Your task to perform on an android device: turn pop-ups on in chrome Image 0: 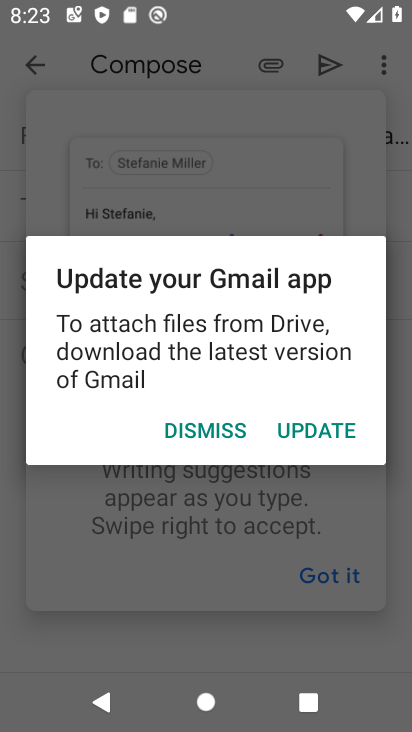
Step 0: press home button
Your task to perform on an android device: turn pop-ups on in chrome Image 1: 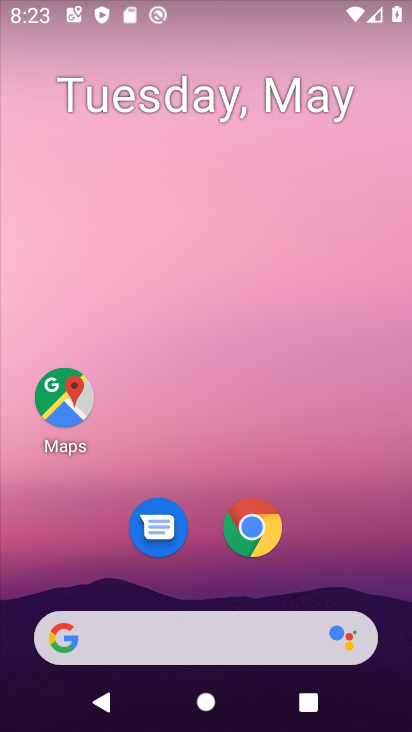
Step 1: click (273, 539)
Your task to perform on an android device: turn pop-ups on in chrome Image 2: 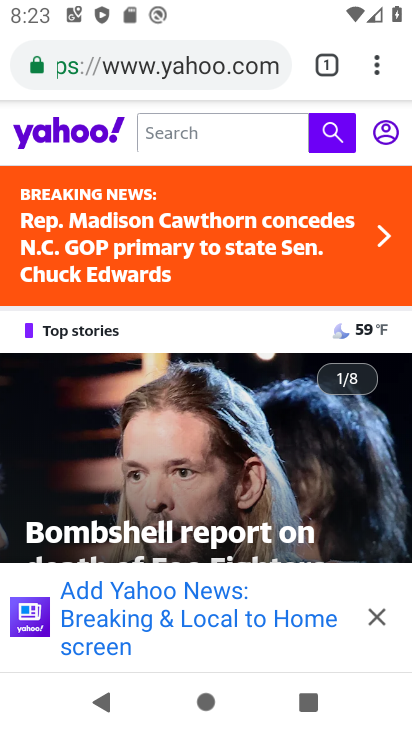
Step 2: drag from (384, 61) to (217, 598)
Your task to perform on an android device: turn pop-ups on in chrome Image 3: 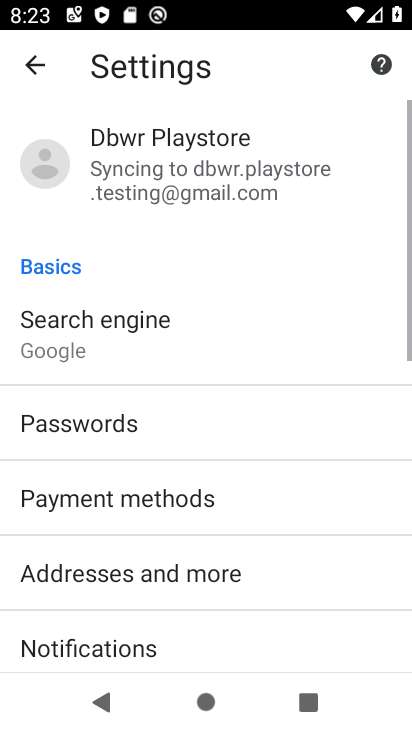
Step 3: drag from (217, 598) to (369, 269)
Your task to perform on an android device: turn pop-ups on in chrome Image 4: 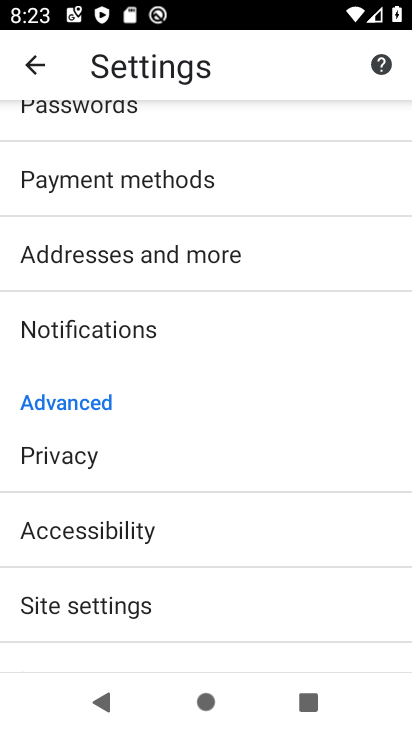
Step 4: drag from (130, 540) to (243, 328)
Your task to perform on an android device: turn pop-ups on in chrome Image 5: 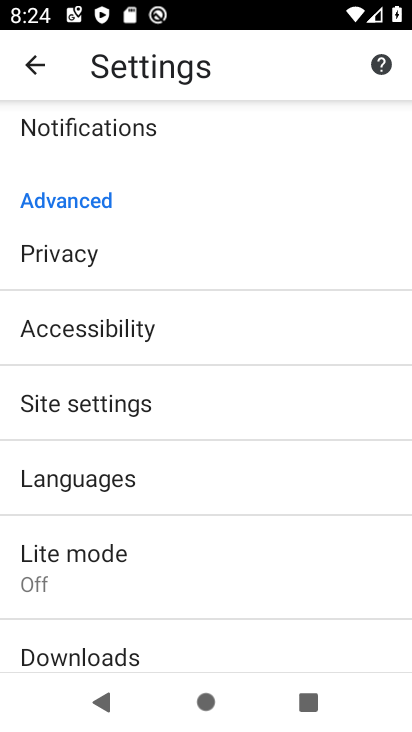
Step 5: click (147, 414)
Your task to perform on an android device: turn pop-ups on in chrome Image 6: 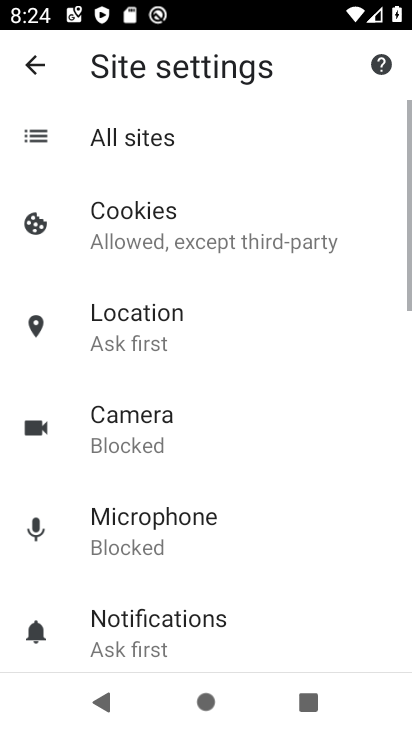
Step 6: drag from (204, 540) to (324, 227)
Your task to perform on an android device: turn pop-ups on in chrome Image 7: 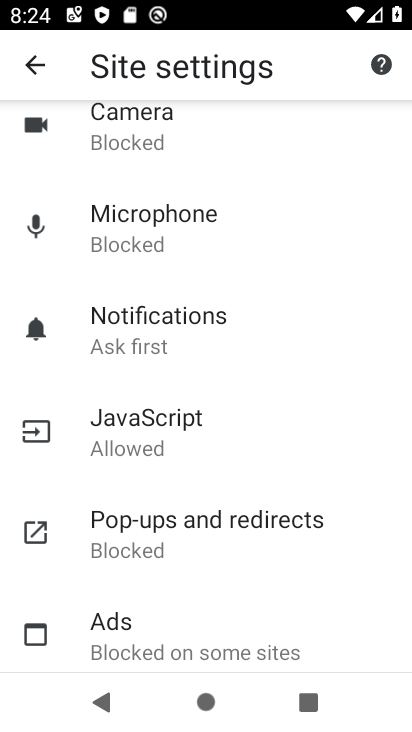
Step 7: click (189, 535)
Your task to perform on an android device: turn pop-ups on in chrome Image 8: 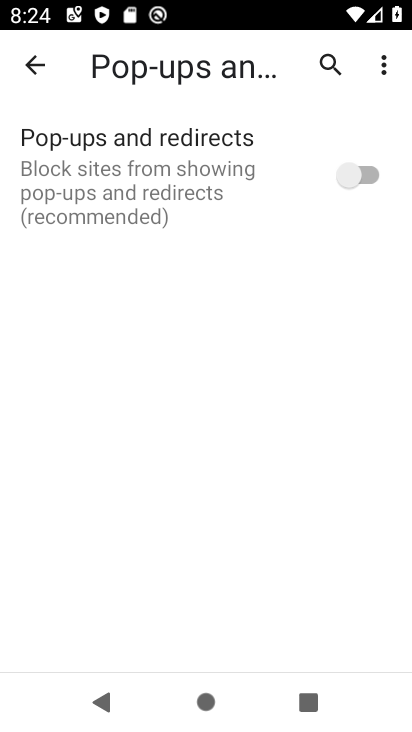
Step 8: click (386, 166)
Your task to perform on an android device: turn pop-ups on in chrome Image 9: 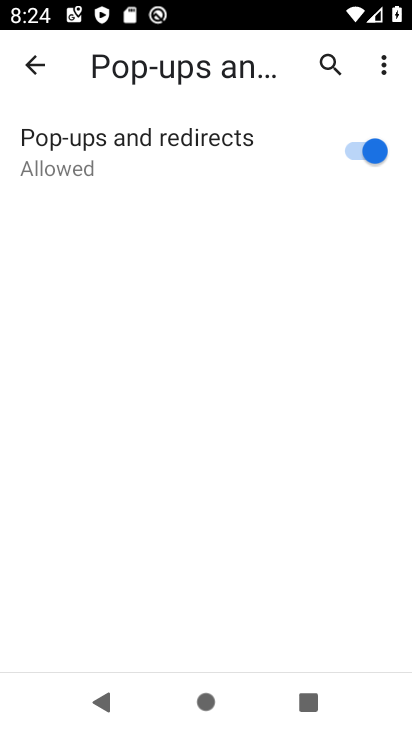
Step 9: task complete